Your task to perform on an android device: open app "Indeed Job Search" (install if not already installed) Image 0: 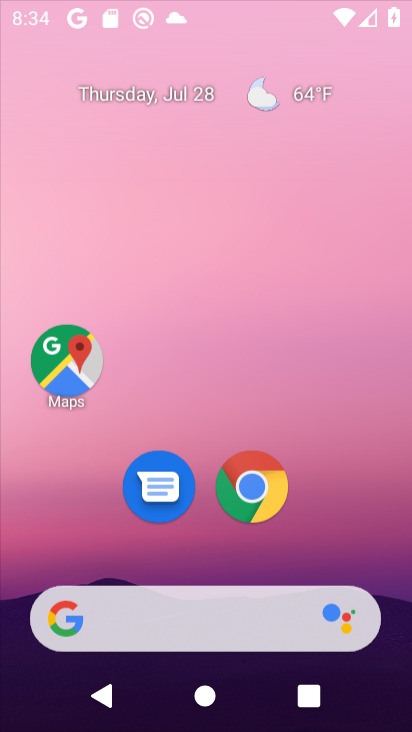
Step 0: drag from (269, 599) to (248, 210)
Your task to perform on an android device: open app "Indeed Job Search" (install if not already installed) Image 1: 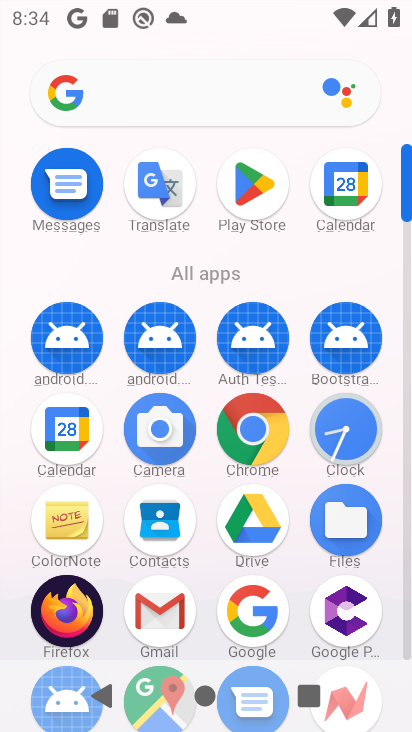
Step 1: click (246, 180)
Your task to perform on an android device: open app "Indeed Job Search" (install if not already installed) Image 2: 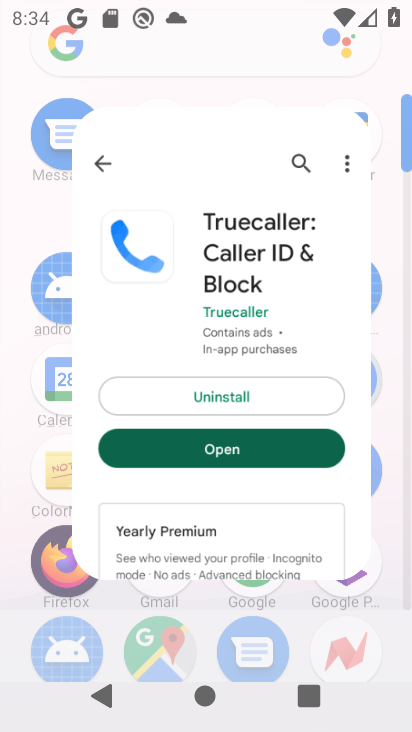
Step 2: click (246, 187)
Your task to perform on an android device: open app "Indeed Job Search" (install if not already installed) Image 3: 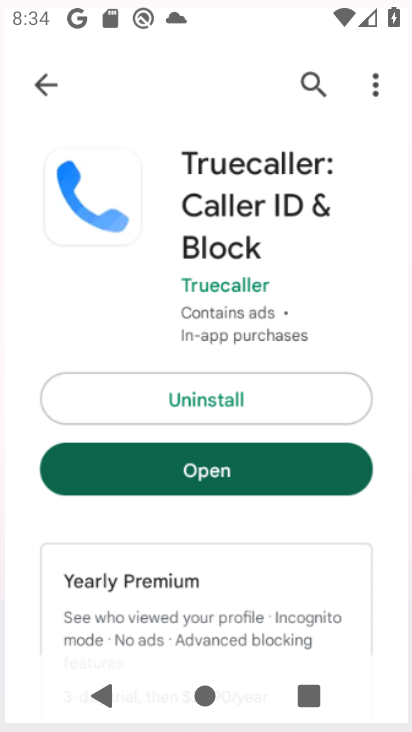
Step 3: click (246, 187)
Your task to perform on an android device: open app "Indeed Job Search" (install if not already installed) Image 4: 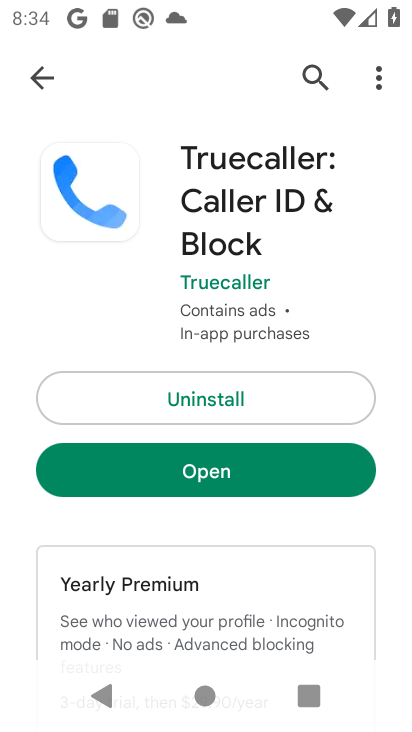
Step 4: click (38, 66)
Your task to perform on an android device: open app "Indeed Job Search" (install if not already installed) Image 5: 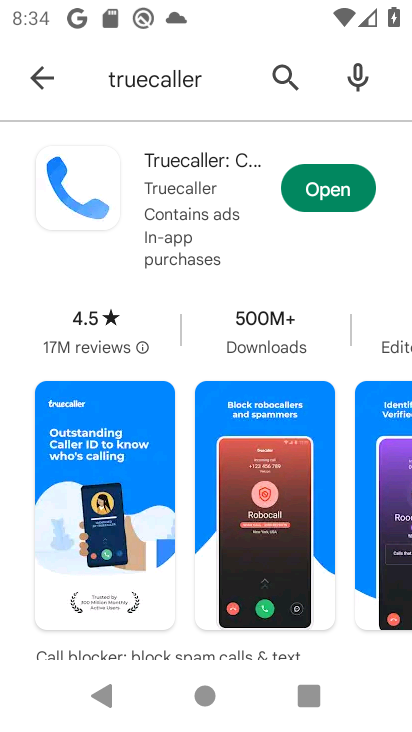
Step 5: click (42, 73)
Your task to perform on an android device: open app "Indeed Job Search" (install if not already installed) Image 6: 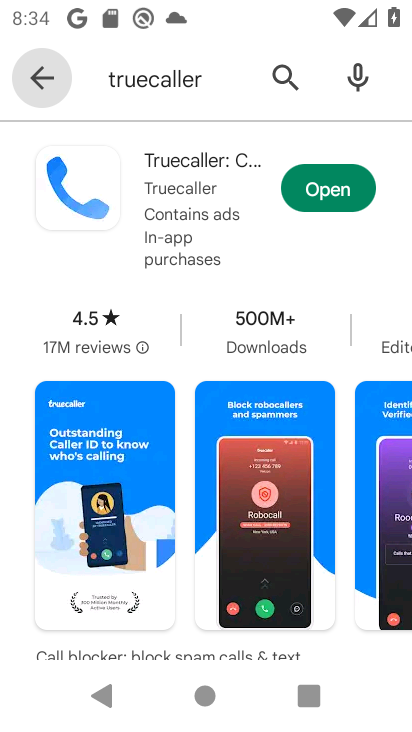
Step 6: click (39, 75)
Your task to perform on an android device: open app "Indeed Job Search" (install if not already installed) Image 7: 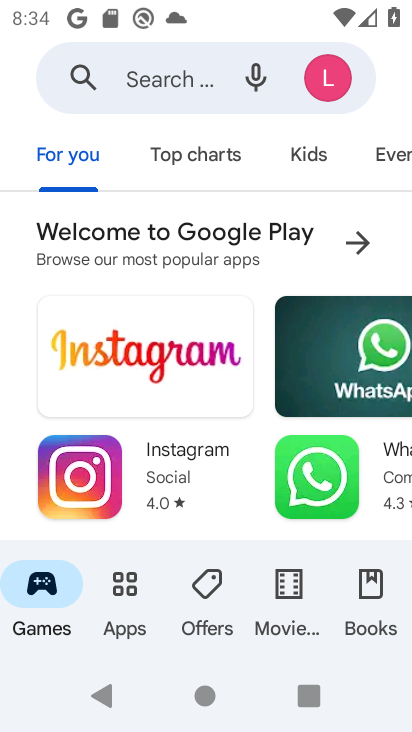
Step 7: click (147, 71)
Your task to perform on an android device: open app "Indeed Job Search" (install if not already installed) Image 8: 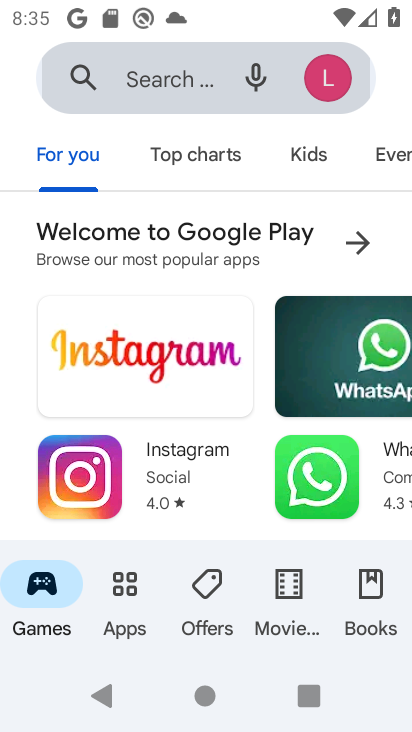
Step 8: click (146, 84)
Your task to perform on an android device: open app "Indeed Job Search" (install if not already installed) Image 9: 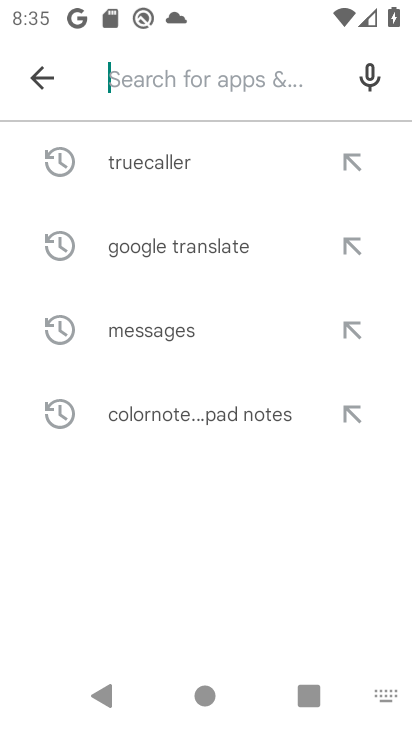
Step 9: click (147, 88)
Your task to perform on an android device: open app "Indeed Job Search" (install if not already installed) Image 10: 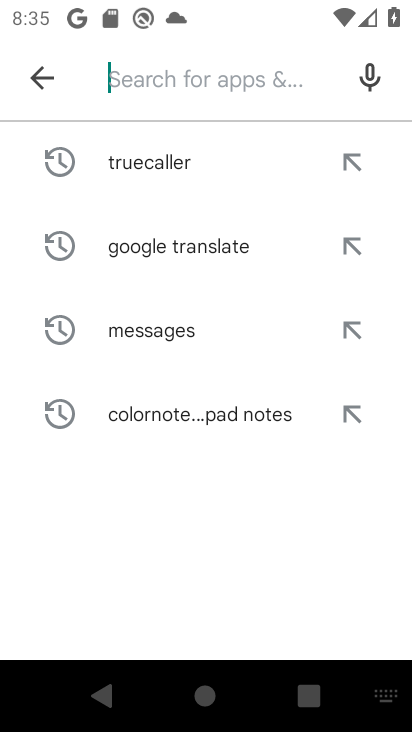
Step 10: type "indeed job search"
Your task to perform on an android device: open app "Indeed Job Search" (install if not already installed) Image 11: 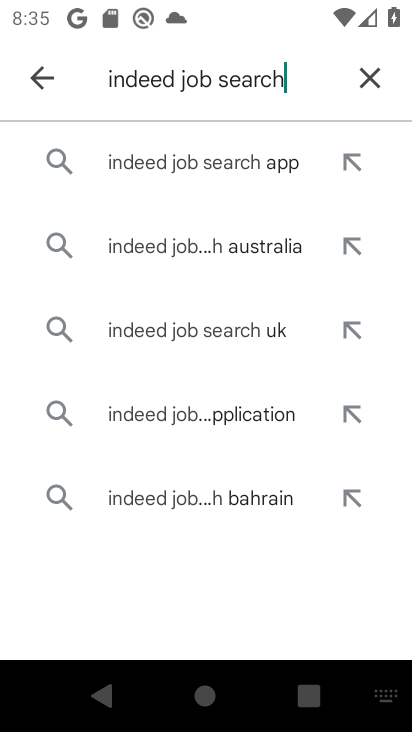
Step 11: click (274, 159)
Your task to perform on an android device: open app "Indeed Job Search" (install if not already installed) Image 12: 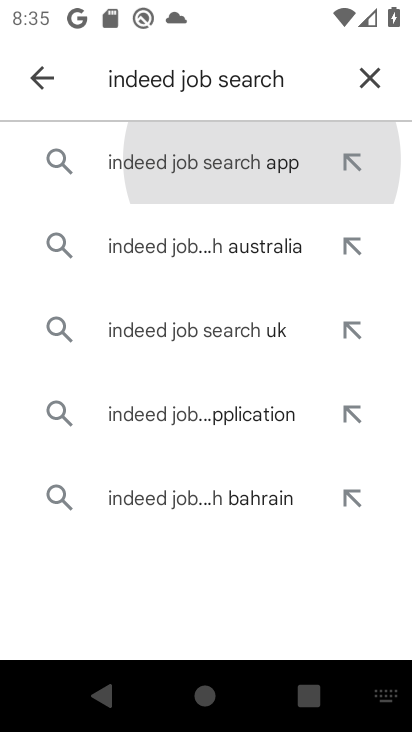
Step 12: click (274, 158)
Your task to perform on an android device: open app "Indeed Job Search" (install if not already installed) Image 13: 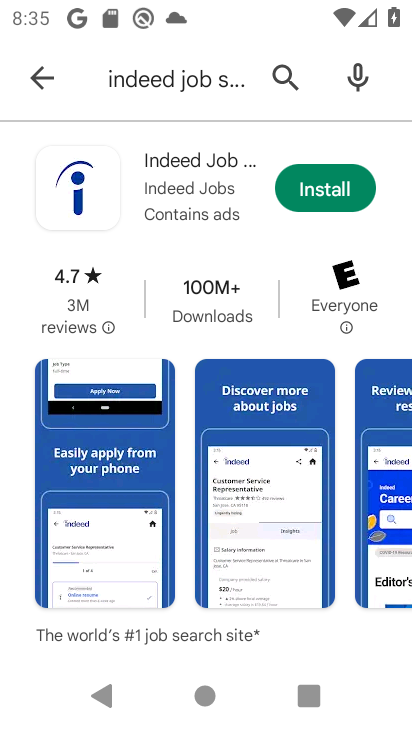
Step 13: click (317, 181)
Your task to perform on an android device: open app "Indeed Job Search" (install if not already installed) Image 14: 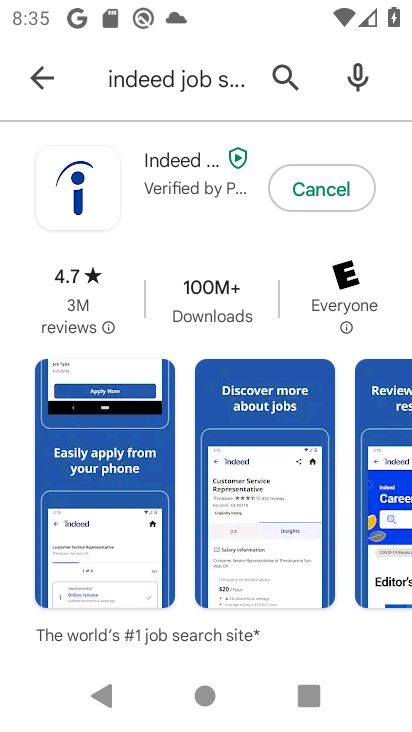
Step 14: click (317, 181)
Your task to perform on an android device: open app "Indeed Job Search" (install if not already installed) Image 15: 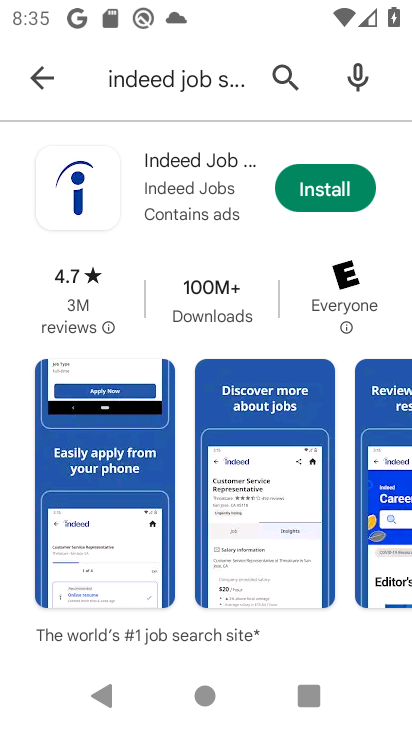
Step 15: click (333, 193)
Your task to perform on an android device: open app "Indeed Job Search" (install if not already installed) Image 16: 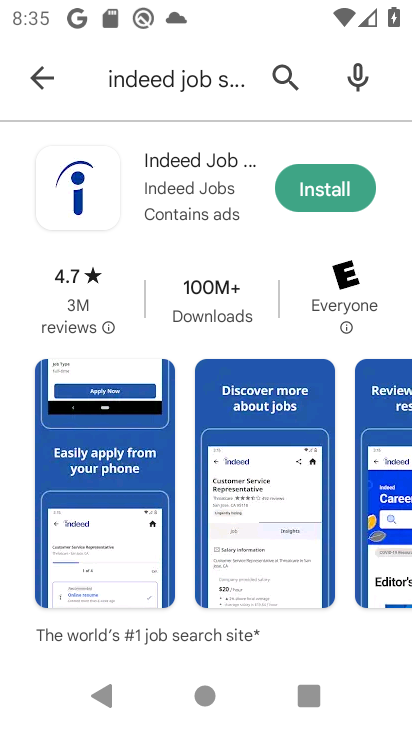
Step 16: click (333, 193)
Your task to perform on an android device: open app "Indeed Job Search" (install if not already installed) Image 17: 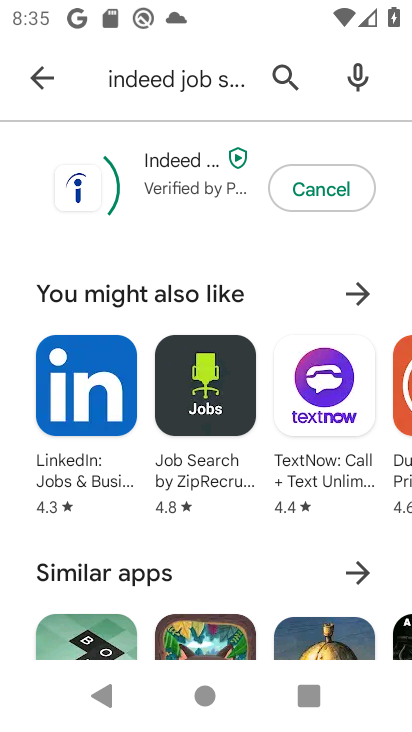
Step 17: click (333, 193)
Your task to perform on an android device: open app "Indeed Job Search" (install if not already installed) Image 18: 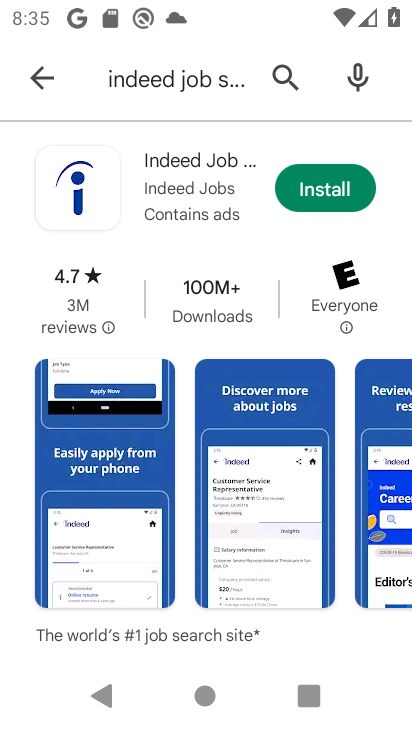
Step 18: click (332, 193)
Your task to perform on an android device: open app "Indeed Job Search" (install if not already installed) Image 19: 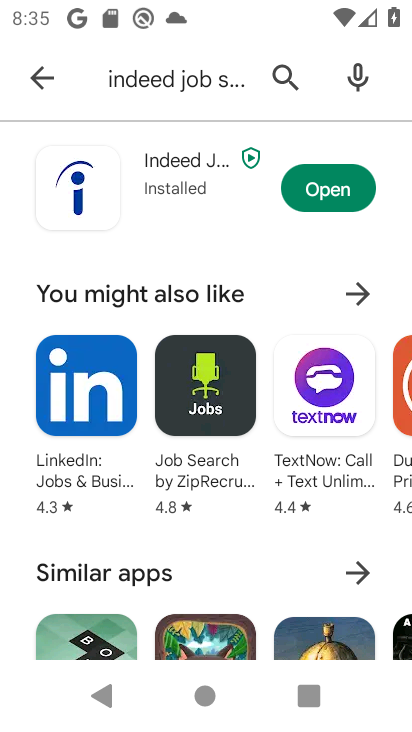
Step 19: click (318, 186)
Your task to perform on an android device: open app "Indeed Job Search" (install if not already installed) Image 20: 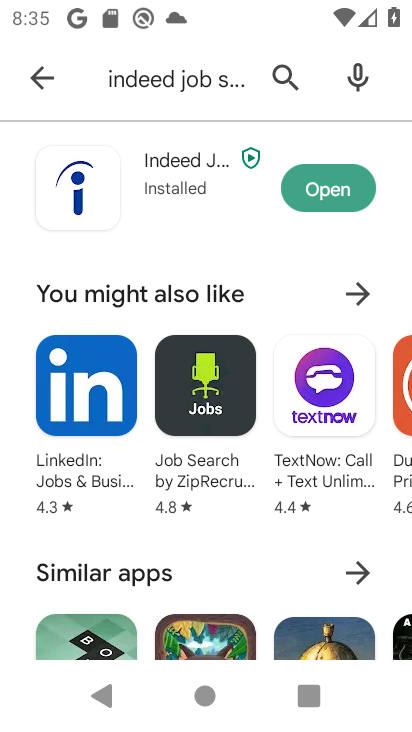
Step 20: click (321, 182)
Your task to perform on an android device: open app "Indeed Job Search" (install if not already installed) Image 21: 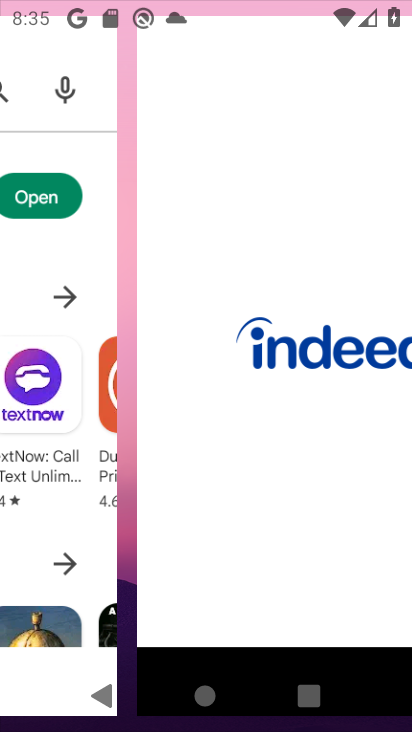
Step 21: click (323, 184)
Your task to perform on an android device: open app "Indeed Job Search" (install if not already installed) Image 22: 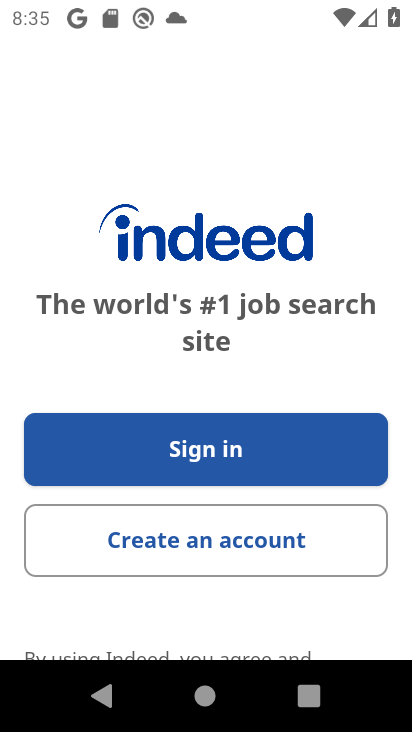
Step 22: task complete